Your task to perform on an android device: remove spam from my inbox in the gmail app Image 0: 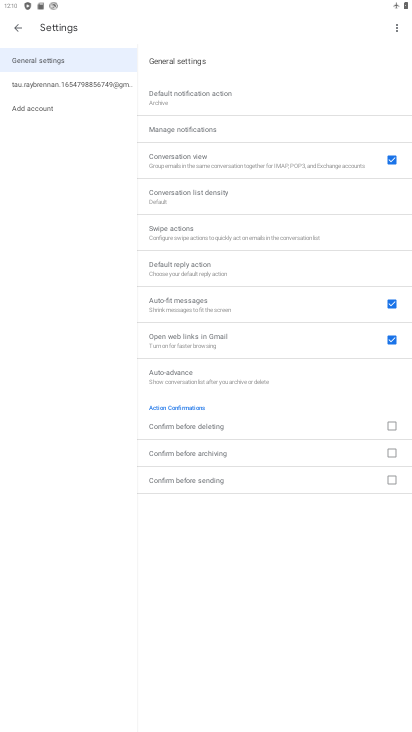
Step 0: press home button
Your task to perform on an android device: remove spam from my inbox in the gmail app Image 1: 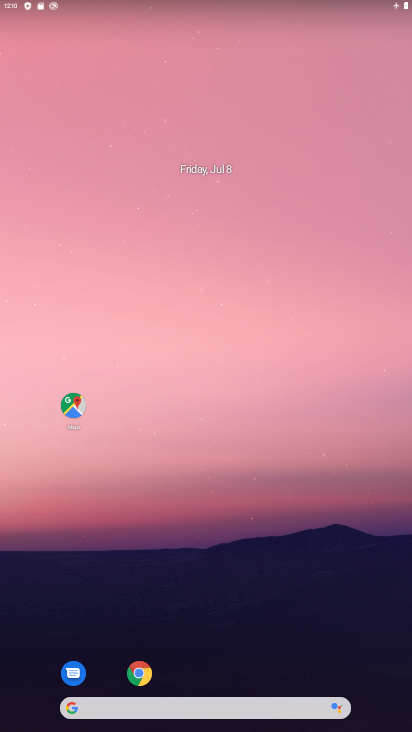
Step 1: drag from (218, 609) to (271, 142)
Your task to perform on an android device: remove spam from my inbox in the gmail app Image 2: 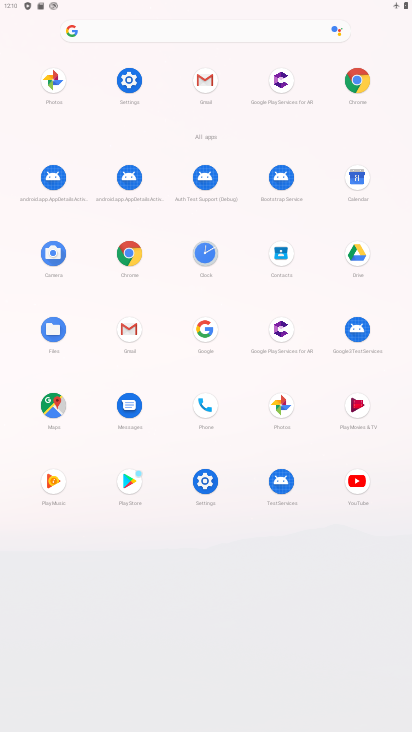
Step 2: click (126, 320)
Your task to perform on an android device: remove spam from my inbox in the gmail app Image 3: 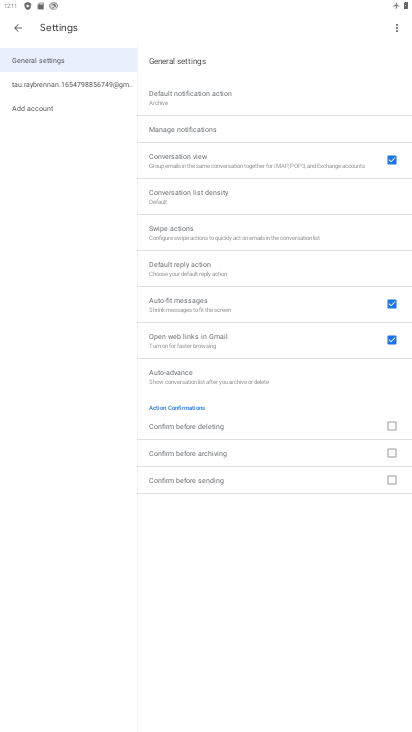
Step 3: press back button
Your task to perform on an android device: remove spam from my inbox in the gmail app Image 4: 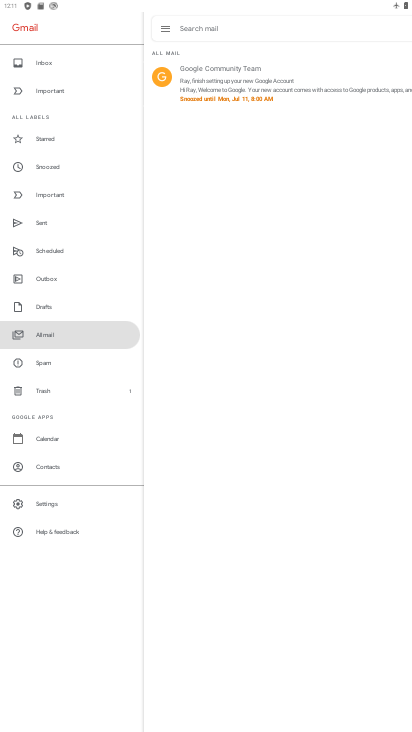
Step 4: click (51, 67)
Your task to perform on an android device: remove spam from my inbox in the gmail app Image 5: 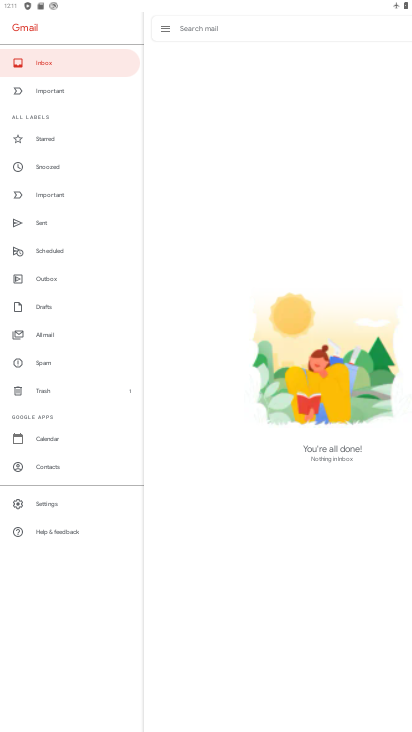
Step 5: task complete